Your task to perform on an android device: What's the weather? Image 0: 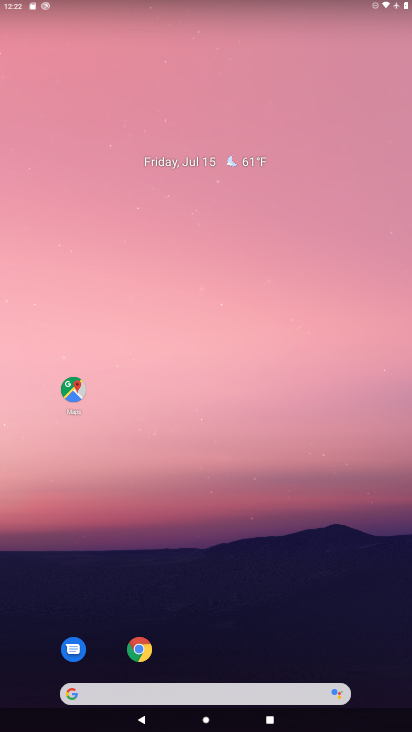
Step 0: click (144, 691)
Your task to perform on an android device: What's the weather? Image 1: 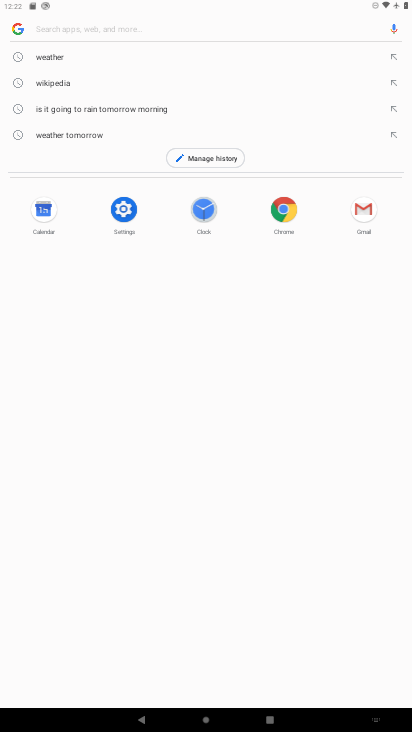
Step 1: click (55, 60)
Your task to perform on an android device: What's the weather? Image 2: 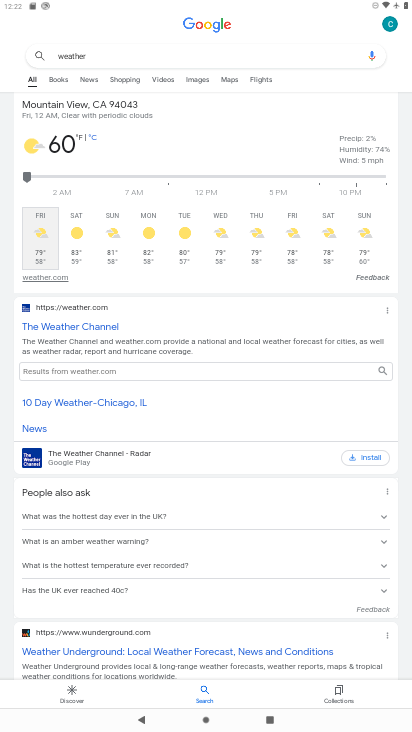
Step 2: task complete